Your task to perform on an android device: turn smart compose on in the gmail app Image 0: 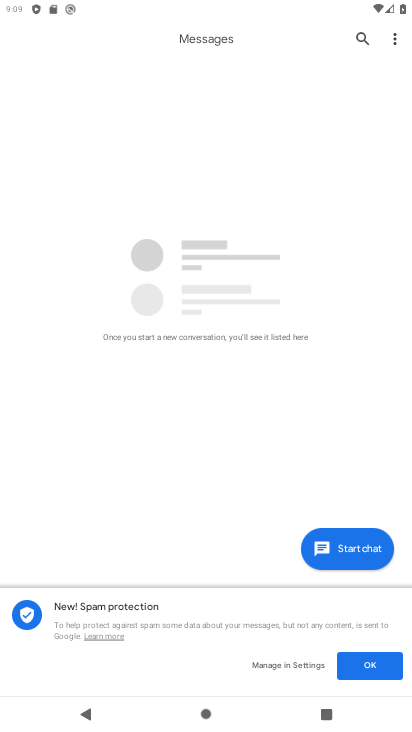
Step 0: press back button
Your task to perform on an android device: turn smart compose on in the gmail app Image 1: 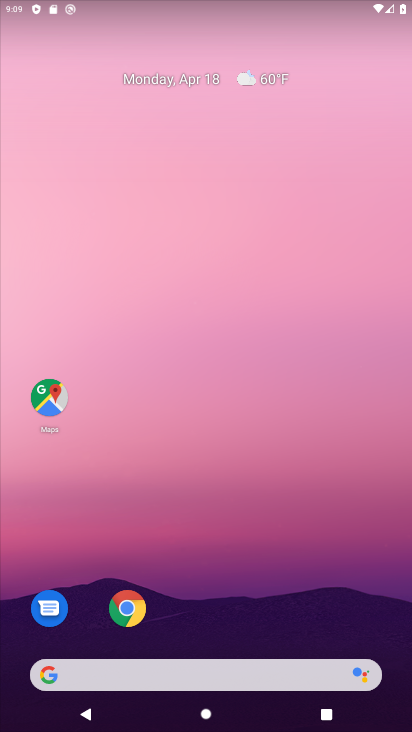
Step 1: drag from (361, 467) to (345, 25)
Your task to perform on an android device: turn smart compose on in the gmail app Image 2: 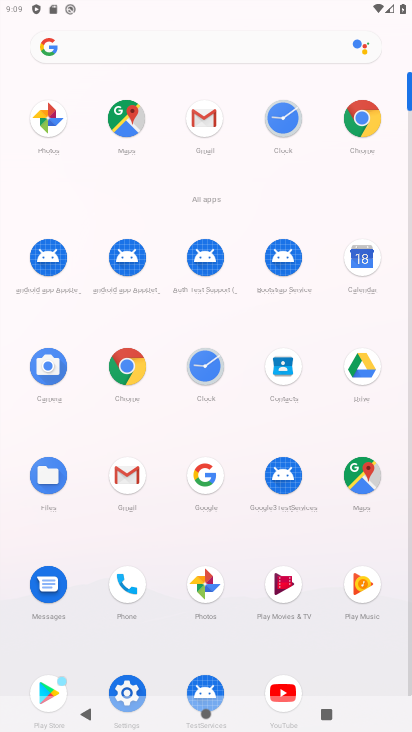
Step 2: click (201, 116)
Your task to perform on an android device: turn smart compose on in the gmail app Image 3: 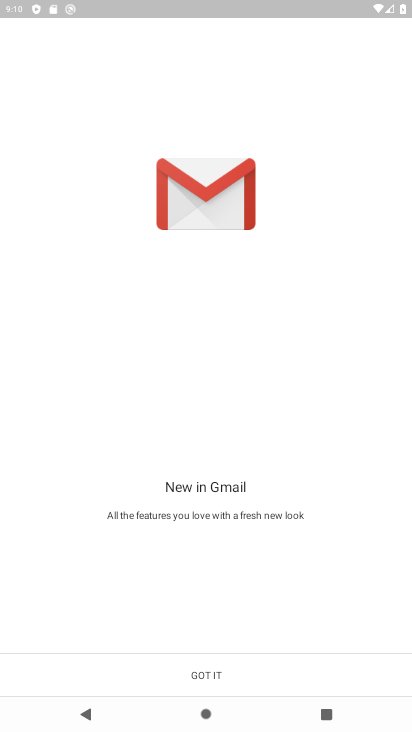
Step 3: click (216, 667)
Your task to perform on an android device: turn smart compose on in the gmail app Image 4: 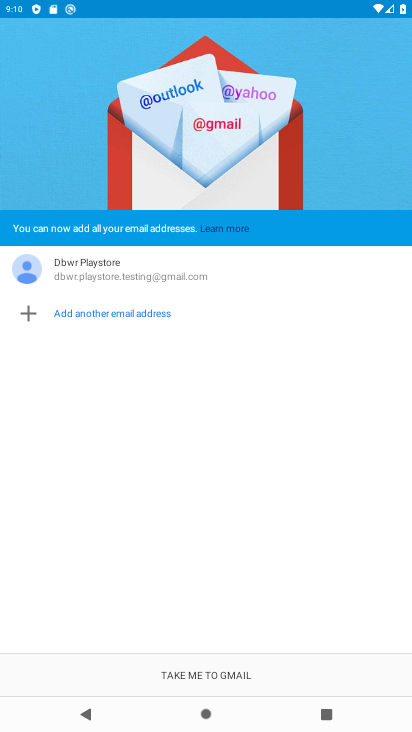
Step 4: click (216, 668)
Your task to perform on an android device: turn smart compose on in the gmail app Image 5: 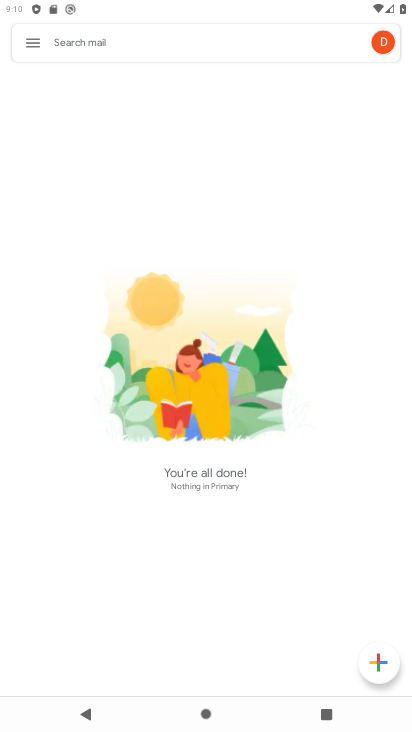
Step 5: click (25, 36)
Your task to perform on an android device: turn smart compose on in the gmail app Image 6: 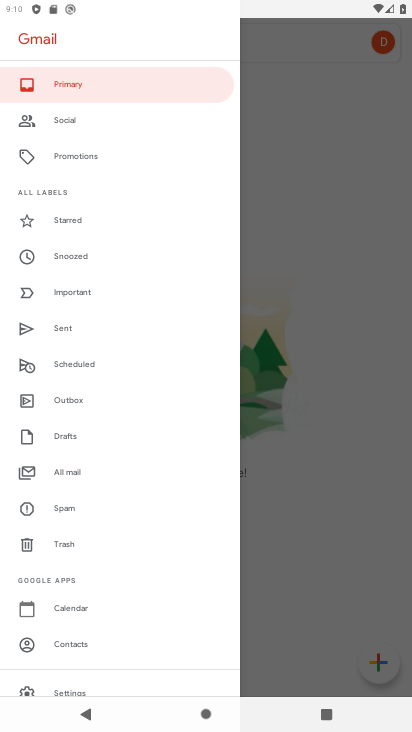
Step 6: drag from (166, 602) to (135, 255)
Your task to perform on an android device: turn smart compose on in the gmail app Image 7: 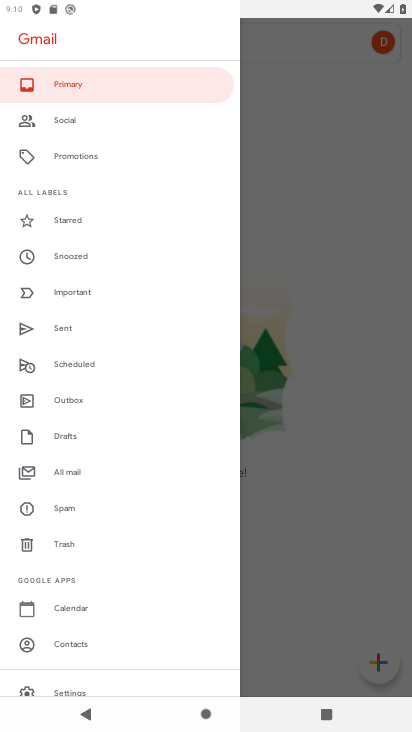
Step 7: click (62, 687)
Your task to perform on an android device: turn smart compose on in the gmail app Image 8: 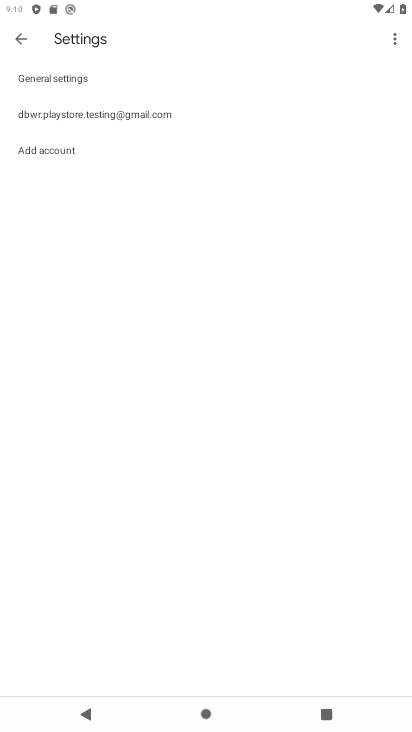
Step 8: click (56, 106)
Your task to perform on an android device: turn smart compose on in the gmail app Image 9: 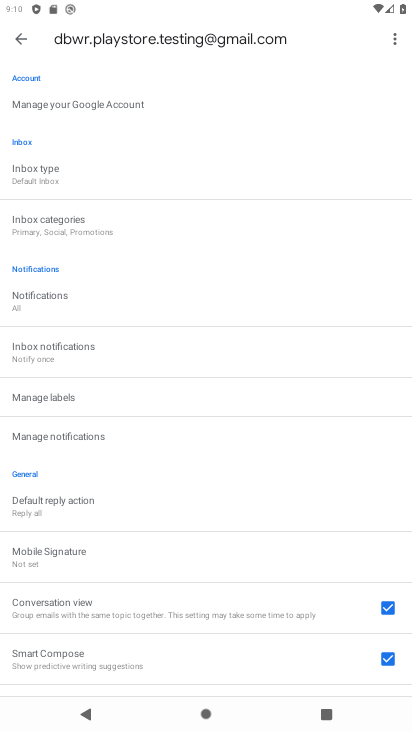
Step 9: click (86, 649)
Your task to perform on an android device: turn smart compose on in the gmail app Image 10: 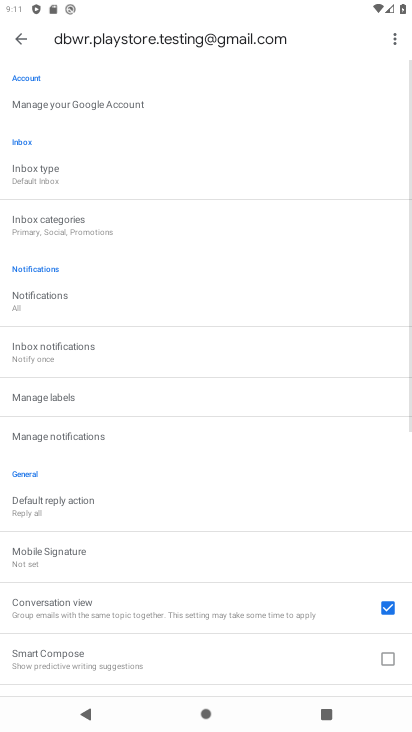
Step 10: click (86, 650)
Your task to perform on an android device: turn smart compose on in the gmail app Image 11: 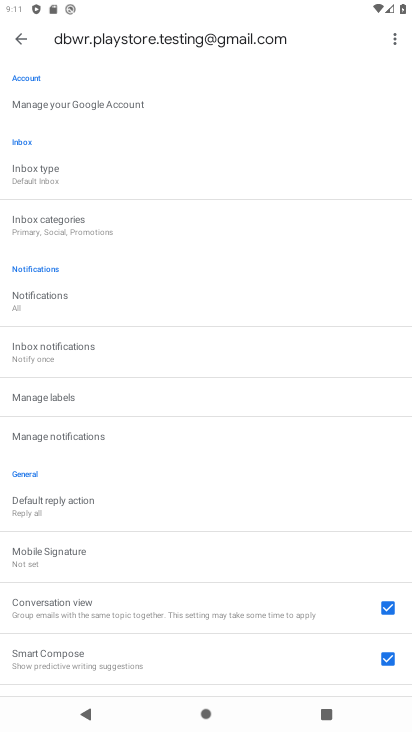
Step 11: task complete